Your task to perform on an android device: change text size in settings app Image 0: 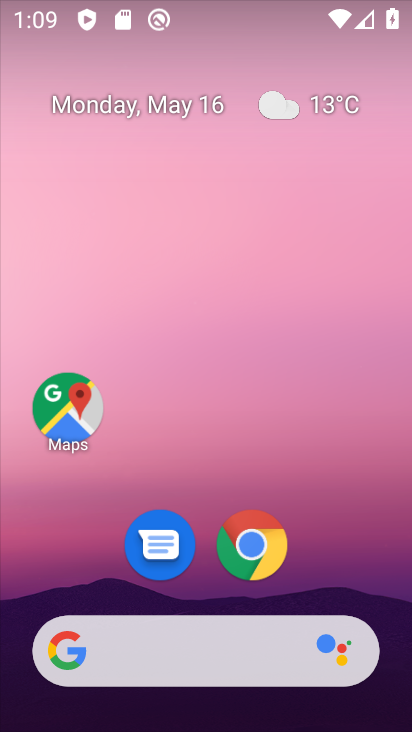
Step 0: drag from (403, 637) to (317, 44)
Your task to perform on an android device: change text size in settings app Image 1: 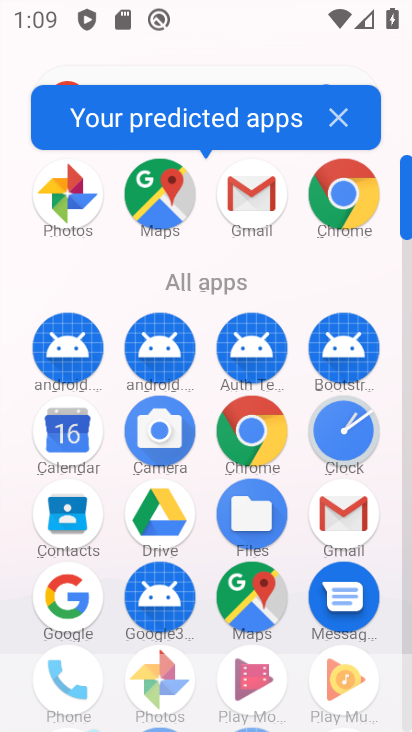
Step 1: click (406, 644)
Your task to perform on an android device: change text size in settings app Image 2: 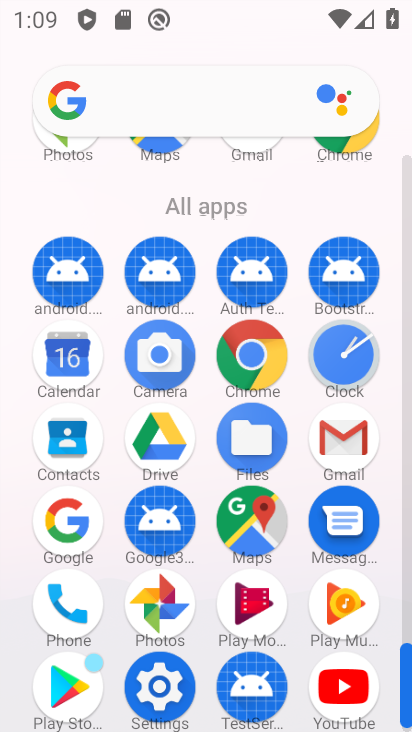
Step 2: click (159, 689)
Your task to perform on an android device: change text size in settings app Image 3: 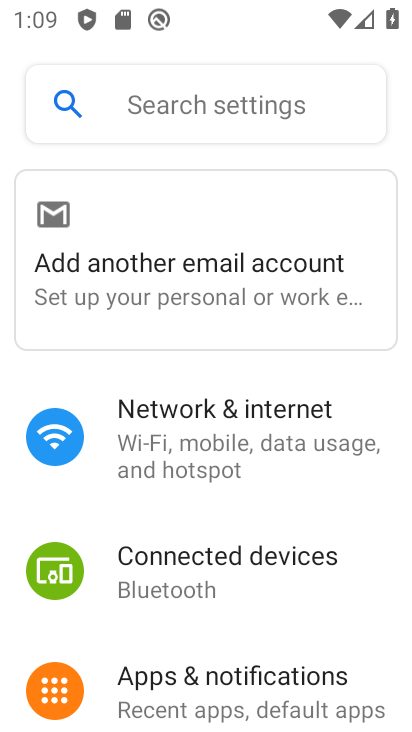
Step 3: drag from (385, 676) to (339, 102)
Your task to perform on an android device: change text size in settings app Image 4: 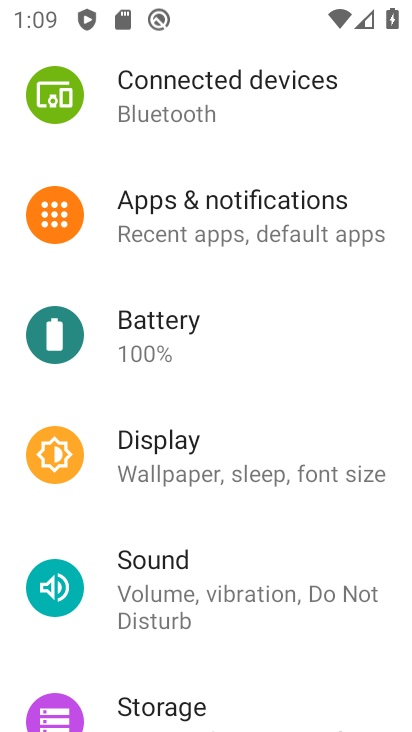
Step 4: click (175, 444)
Your task to perform on an android device: change text size in settings app Image 5: 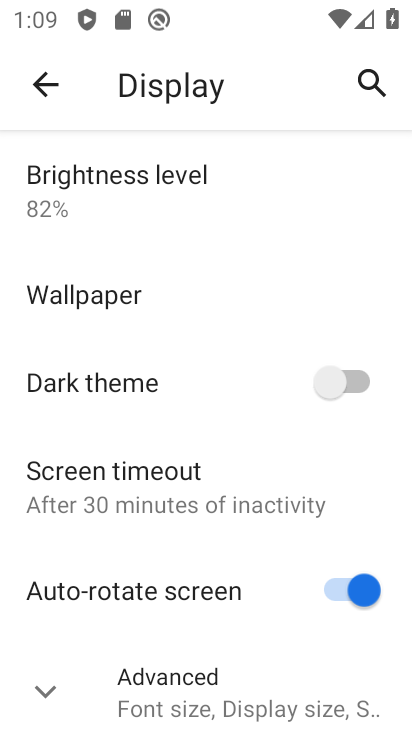
Step 5: click (48, 693)
Your task to perform on an android device: change text size in settings app Image 6: 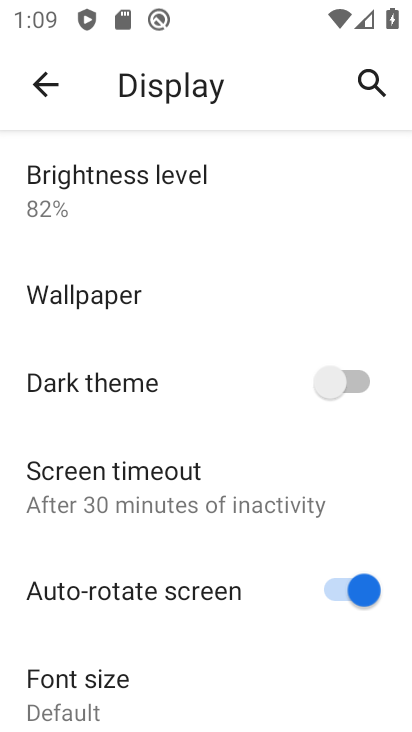
Step 6: drag from (301, 702) to (255, 201)
Your task to perform on an android device: change text size in settings app Image 7: 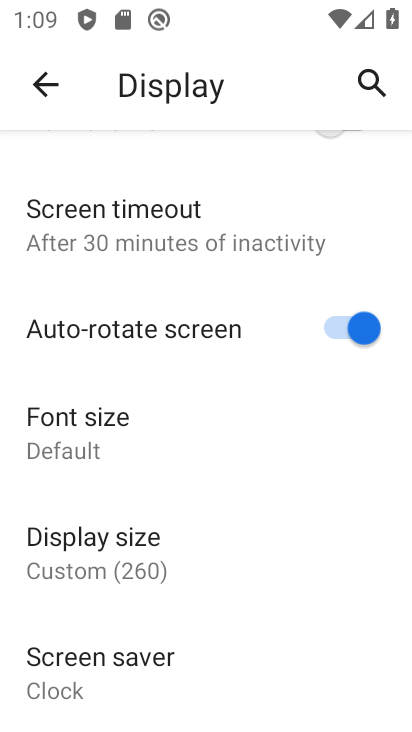
Step 7: click (60, 422)
Your task to perform on an android device: change text size in settings app Image 8: 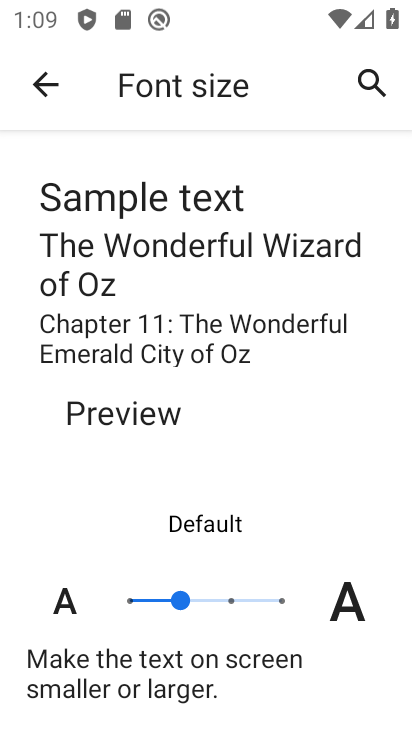
Step 8: click (229, 603)
Your task to perform on an android device: change text size in settings app Image 9: 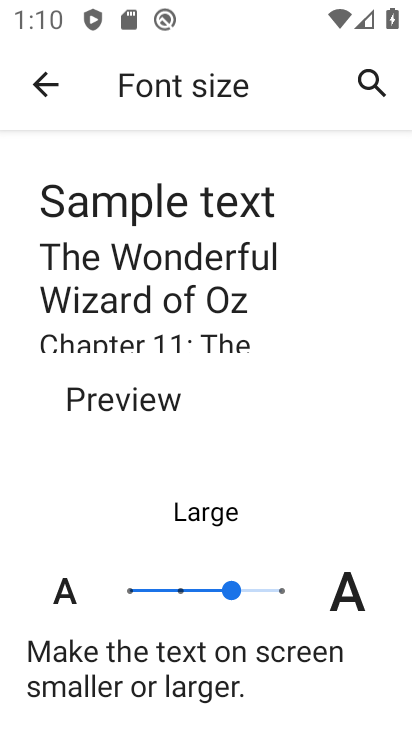
Step 9: task complete